Your task to perform on an android device: Go to ESPN.com Image 0: 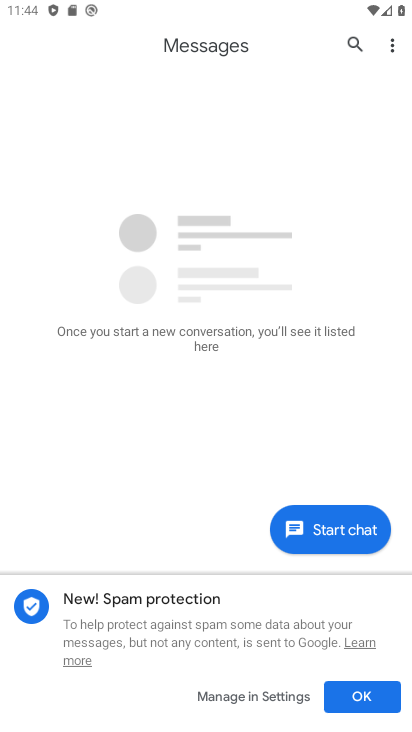
Step 0: press home button
Your task to perform on an android device: Go to ESPN.com Image 1: 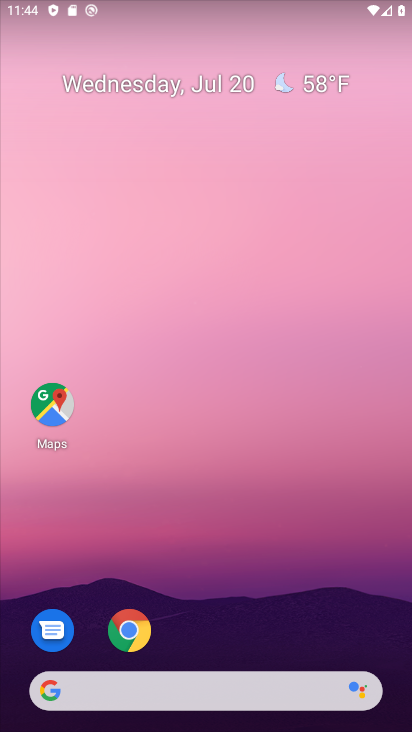
Step 1: click (121, 629)
Your task to perform on an android device: Go to ESPN.com Image 2: 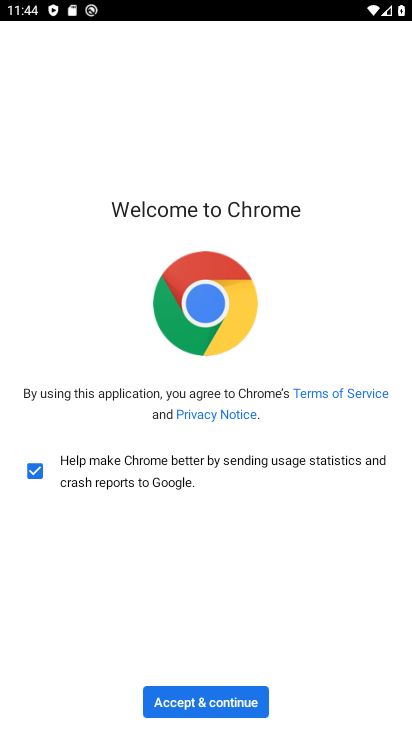
Step 2: click (217, 698)
Your task to perform on an android device: Go to ESPN.com Image 3: 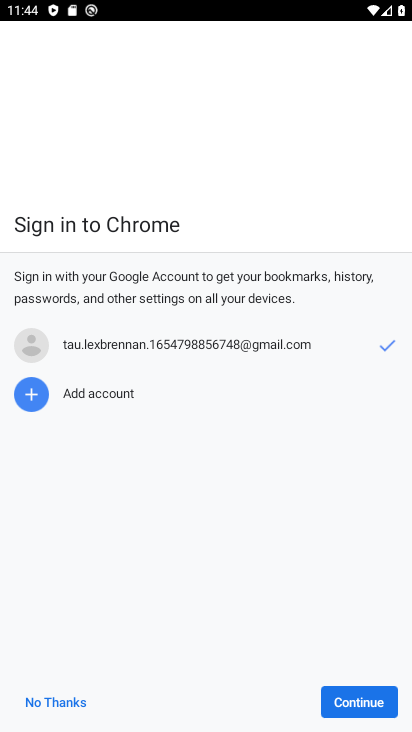
Step 3: click (358, 699)
Your task to perform on an android device: Go to ESPN.com Image 4: 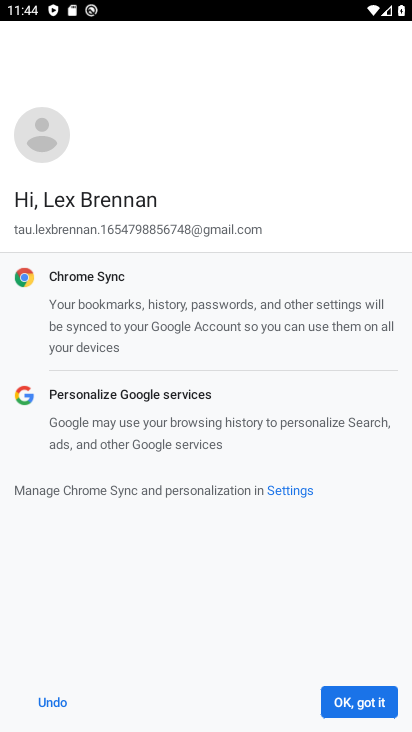
Step 4: click (365, 702)
Your task to perform on an android device: Go to ESPN.com Image 5: 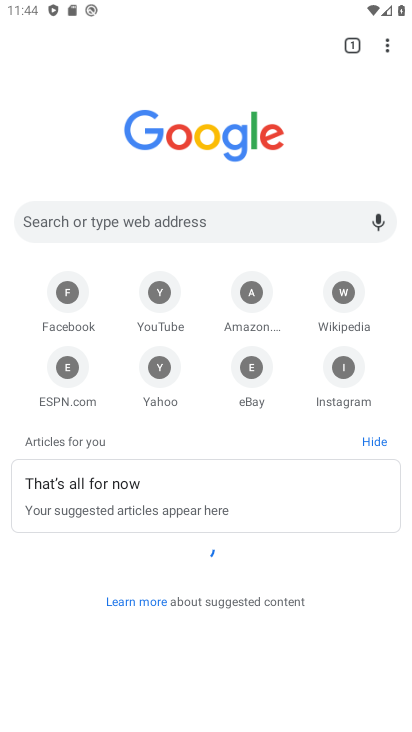
Step 5: click (58, 369)
Your task to perform on an android device: Go to ESPN.com Image 6: 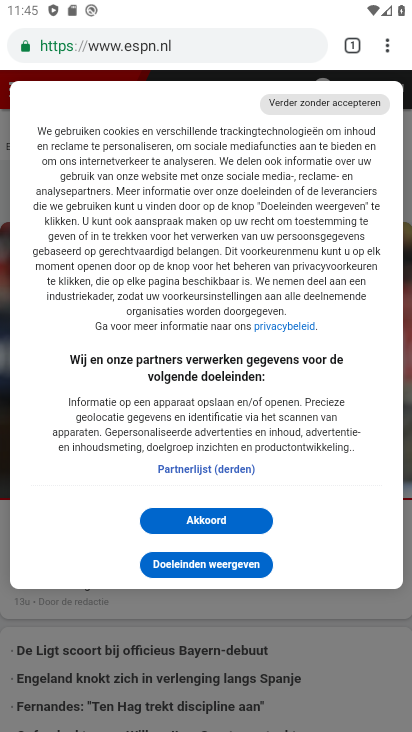
Step 6: task complete